Your task to perform on an android device: Search for seafood restaurants on Google Maps Image 0: 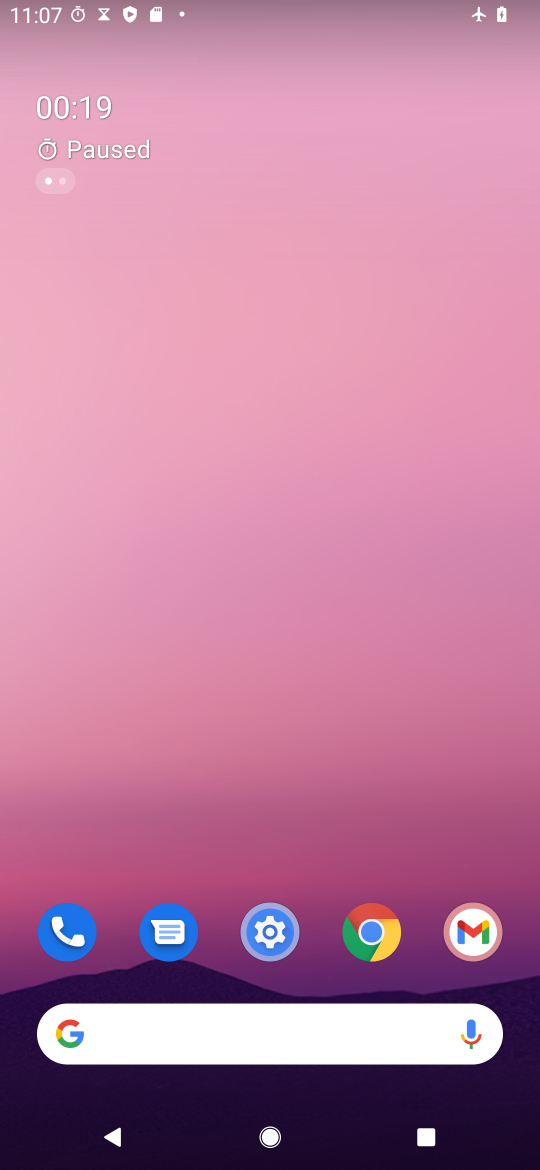
Step 0: drag from (224, 1016) to (362, 226)
Your task to perform on an android device: Search for seafood restaurants on Google Maps Image 1: 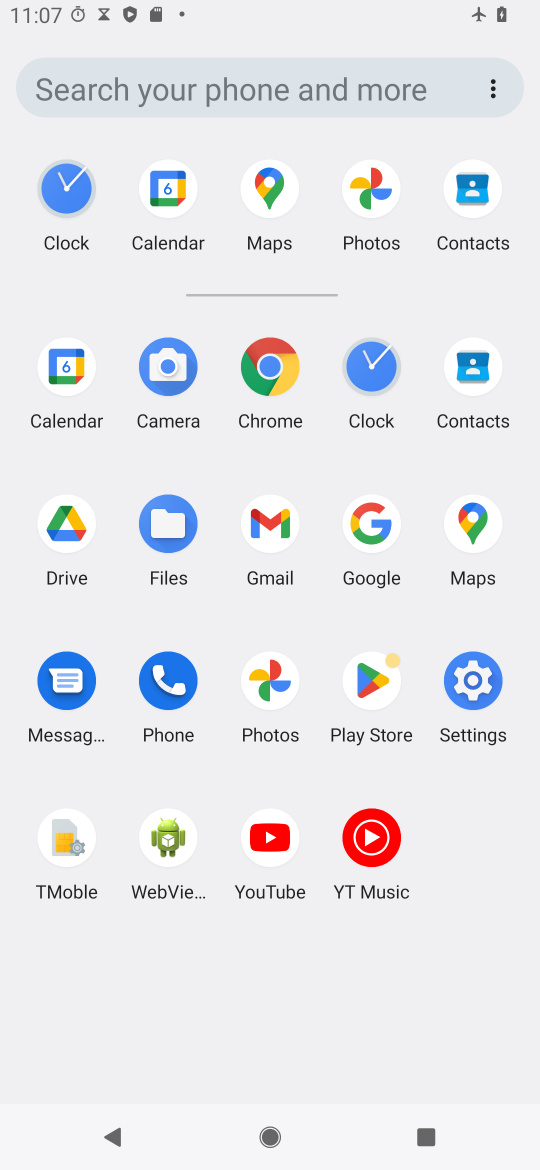
Step 1: click (473, 515)
Your task to perform on an android device: Search for seafood restaurants on Google Maps Image 2: 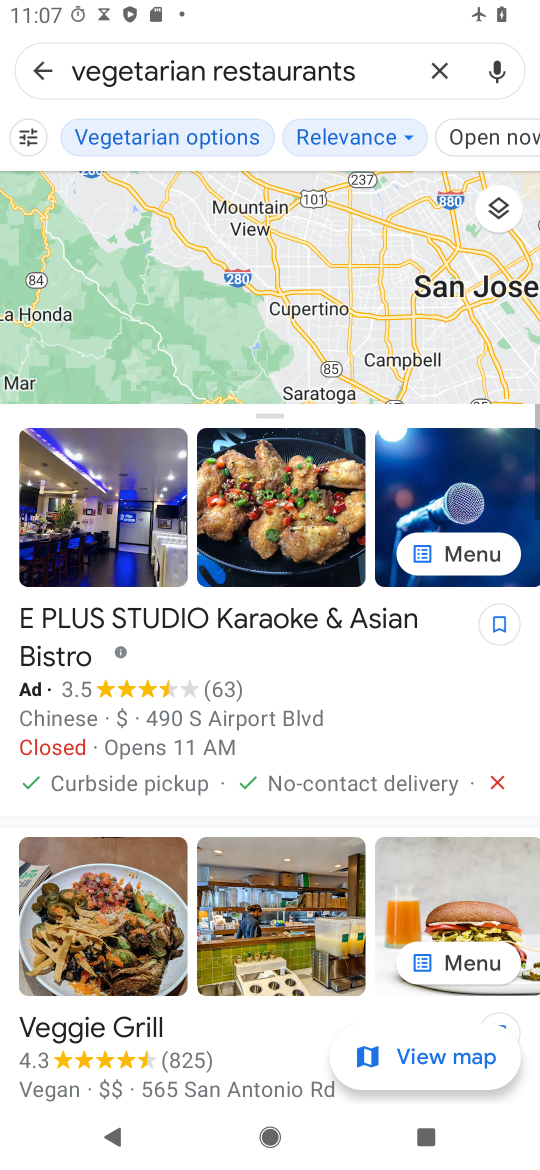
Step 2: click (439, 75)
Your task to perform on an android device: Search for seafood restaurants on Google Maps Image 3: 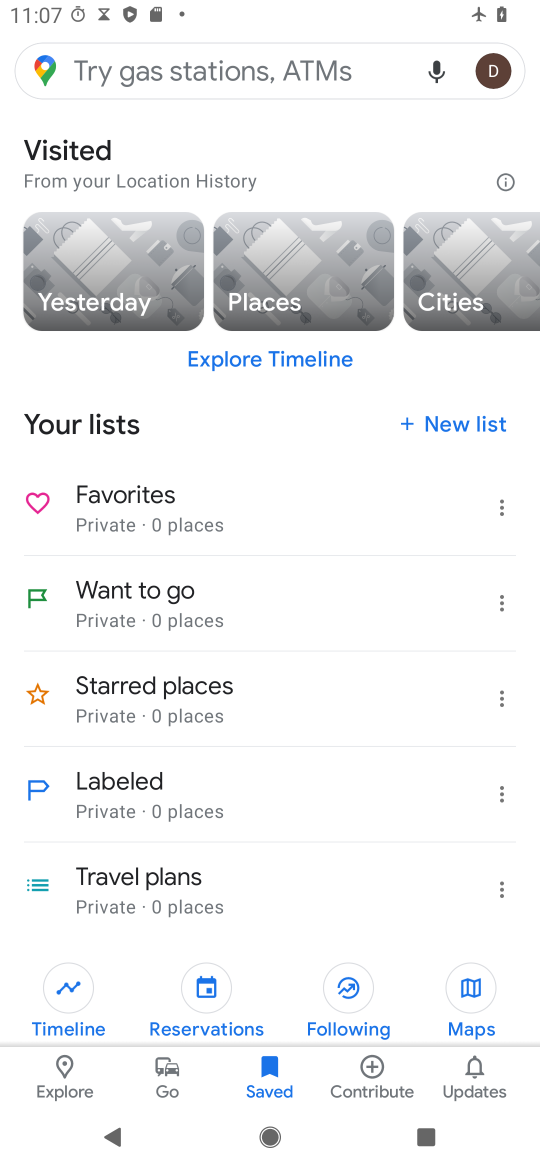
Step 3: click (337, 78)
Your task to perform on an android device: Search for seafood restaurants on Google Maps Image 4: 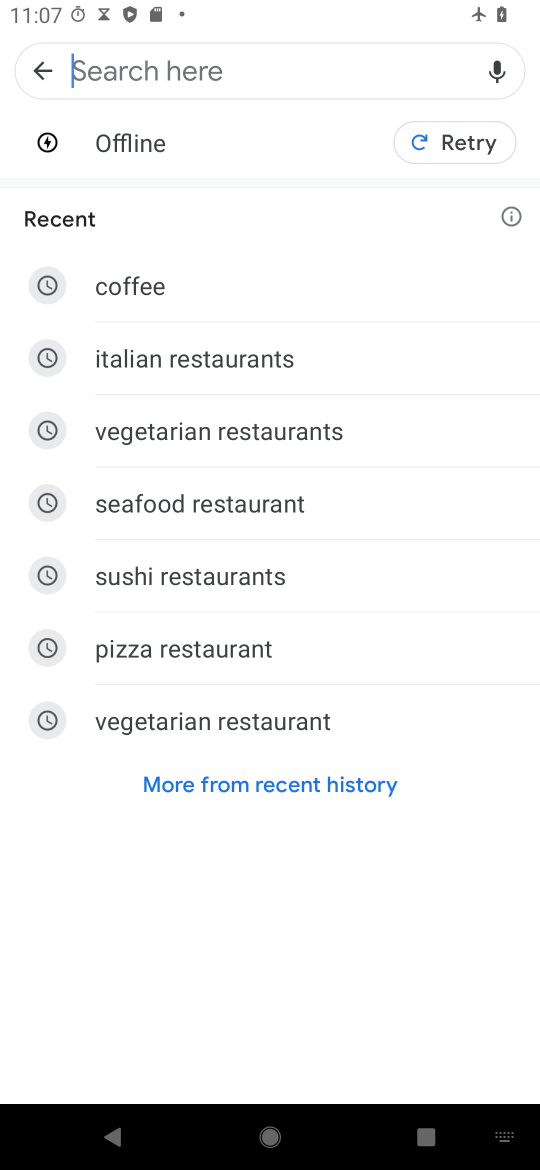
Step 4: click (250, 512)
Your task to perform on an android device: Search for seafood restaurants on Google Maps Image 5: 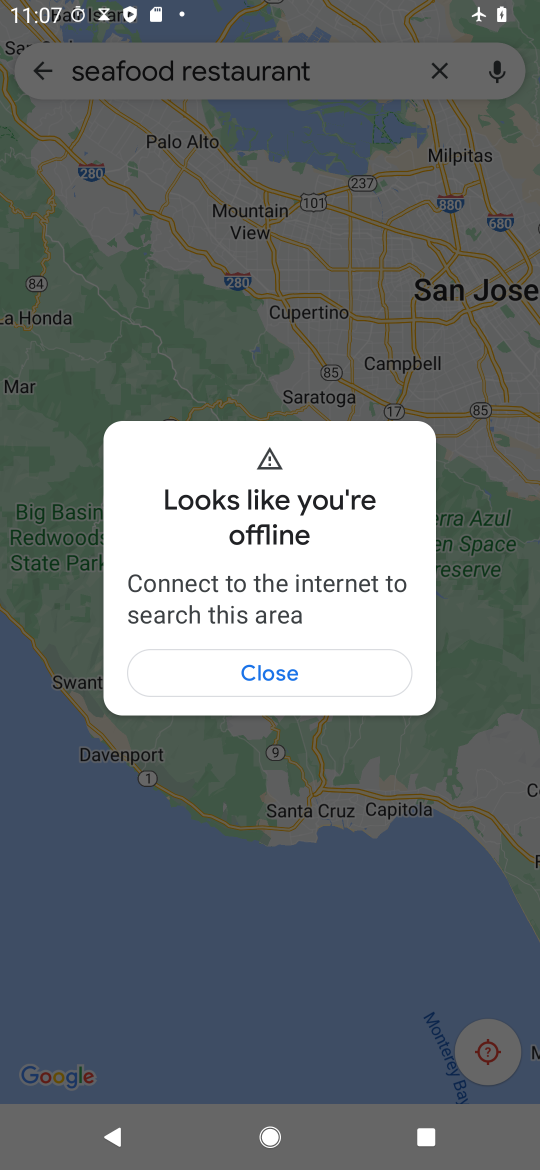
Step 5: click (265, 667)
Your task to perform on an android device: Search for seafood restaurants on Google Maps Image 6: 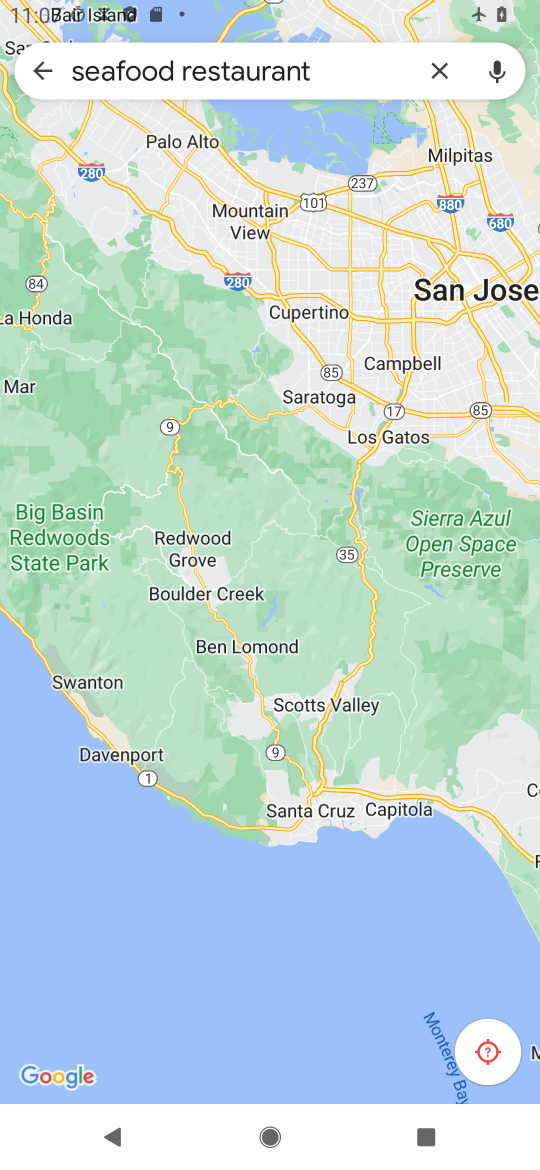
Step 6: click (480, 13)
Your task to perform on an android device: Search for seafood restaurants on Google Maps Image 7: 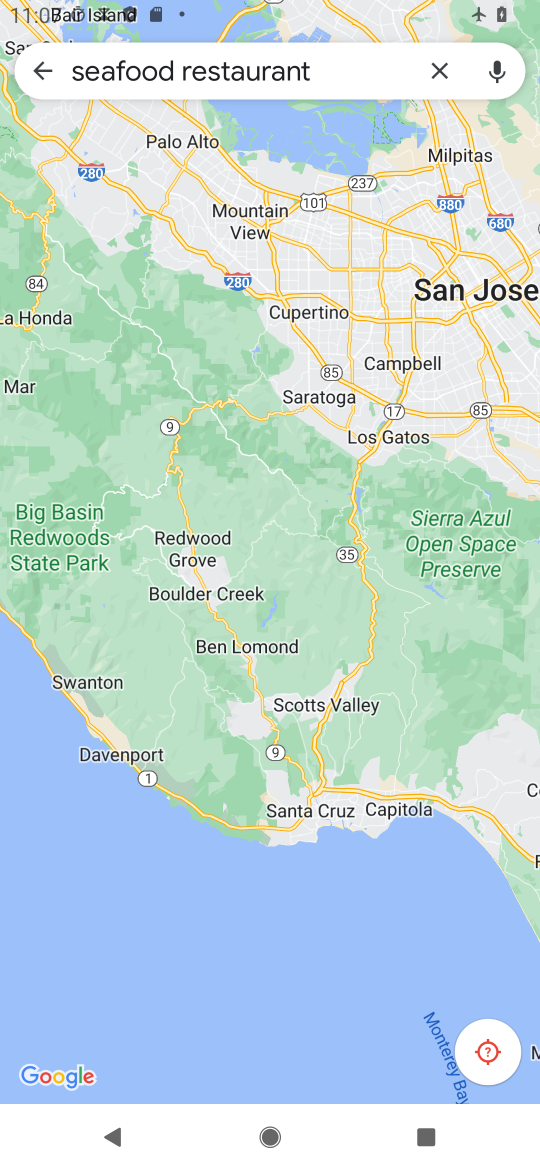
Step 7: task complete